Your task to perform on an android device: Set an alarm for 10am Image 0: 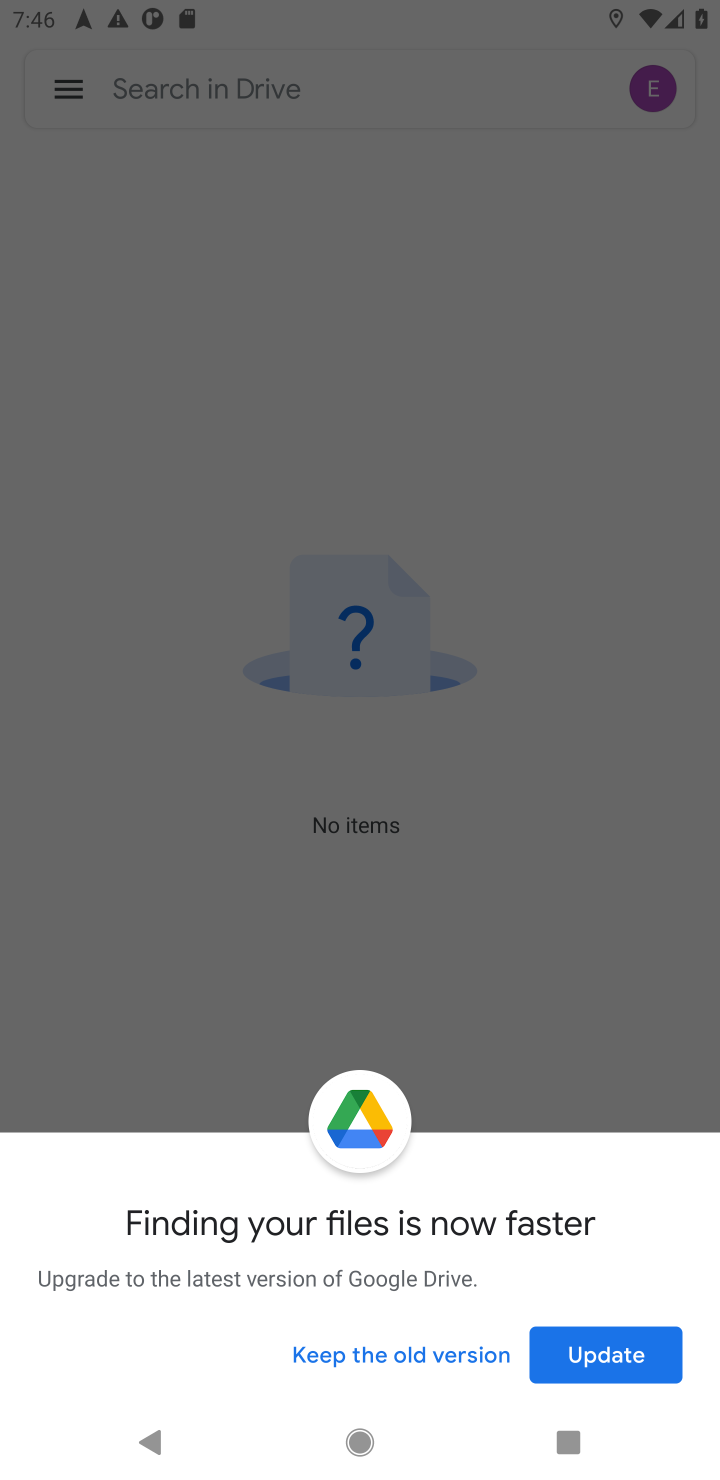
Step 0: press home button
Your task to perform on an android device: Set an alarm for 10am Image 1: 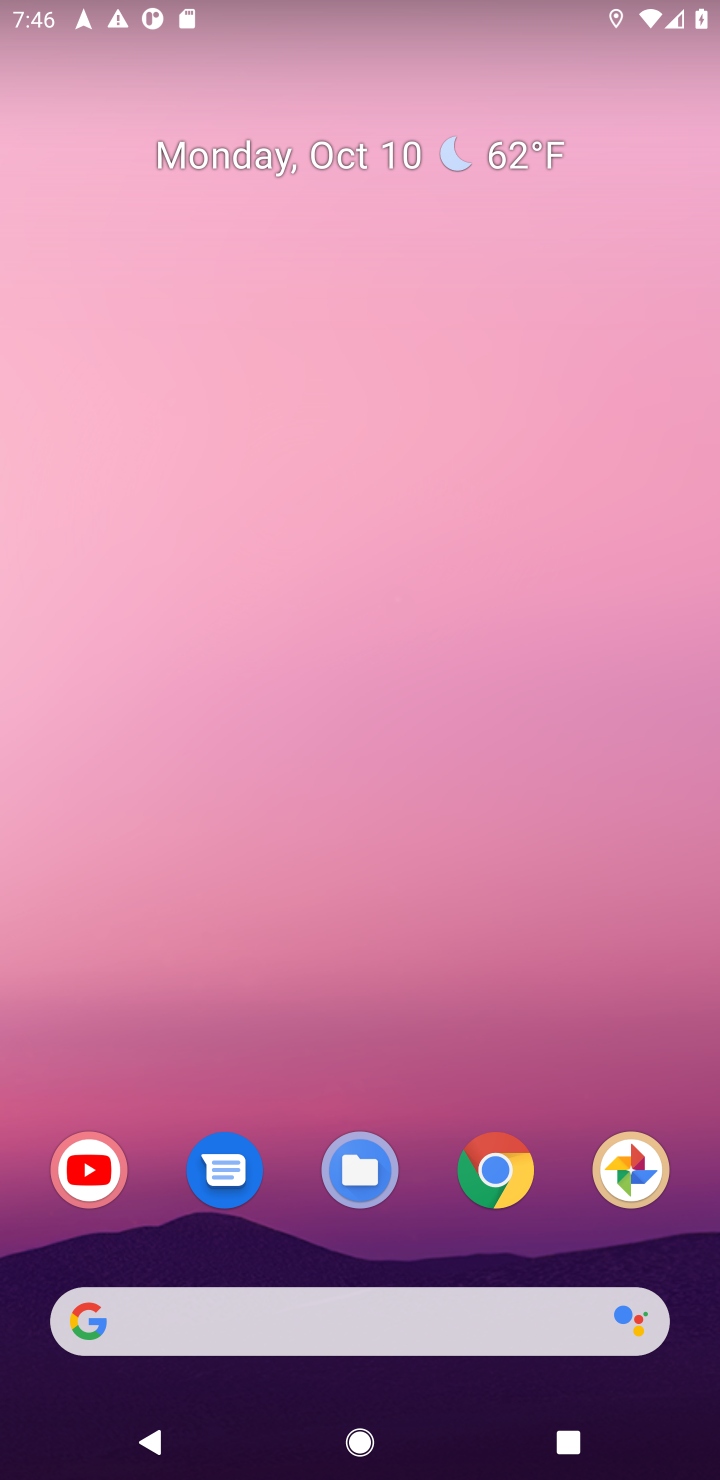
Step 1: drag from (464, 1024) to (431, 417)
Your task to perform on an android device: Set an alarm for 10am Image 2: 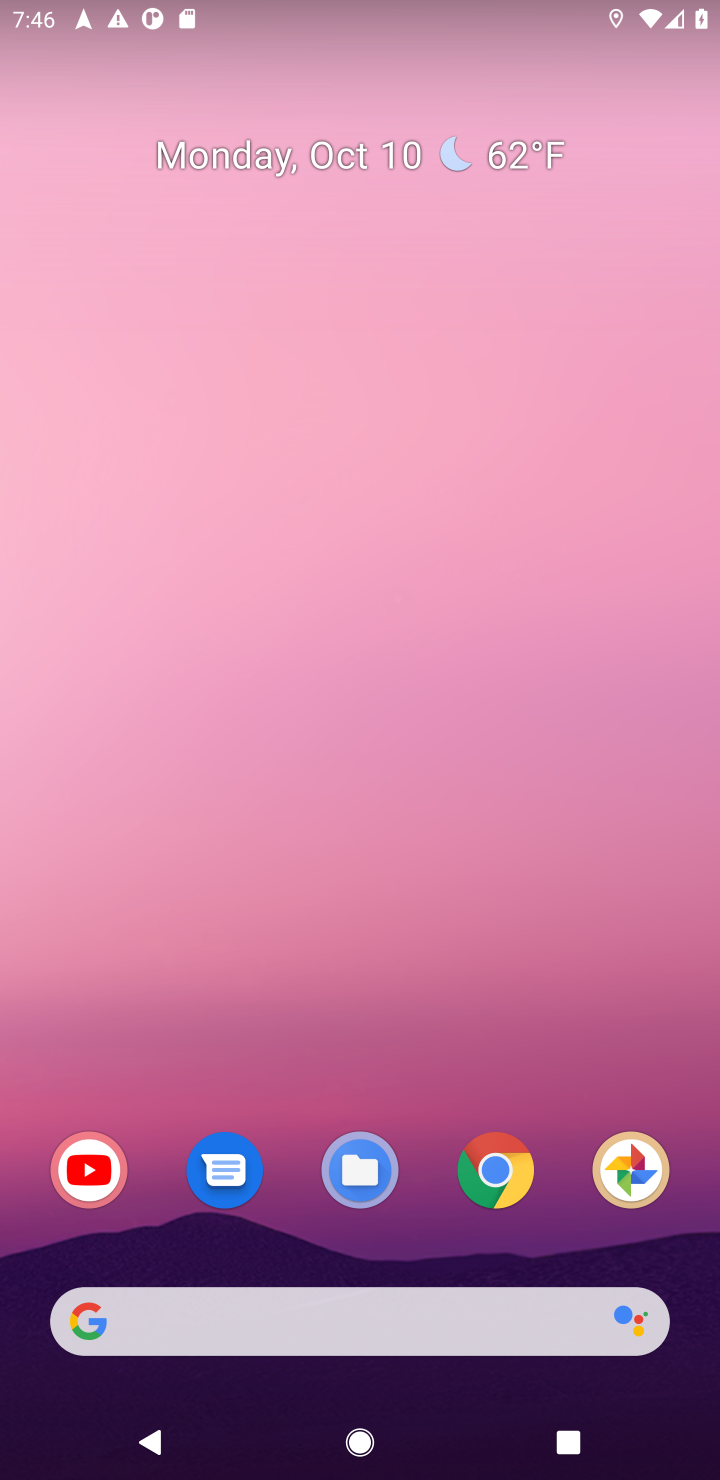
Step 2: drag from (451, 970) to (384, 174)
Your task to perform on an android device: Set an alarm for 10am Image 3: 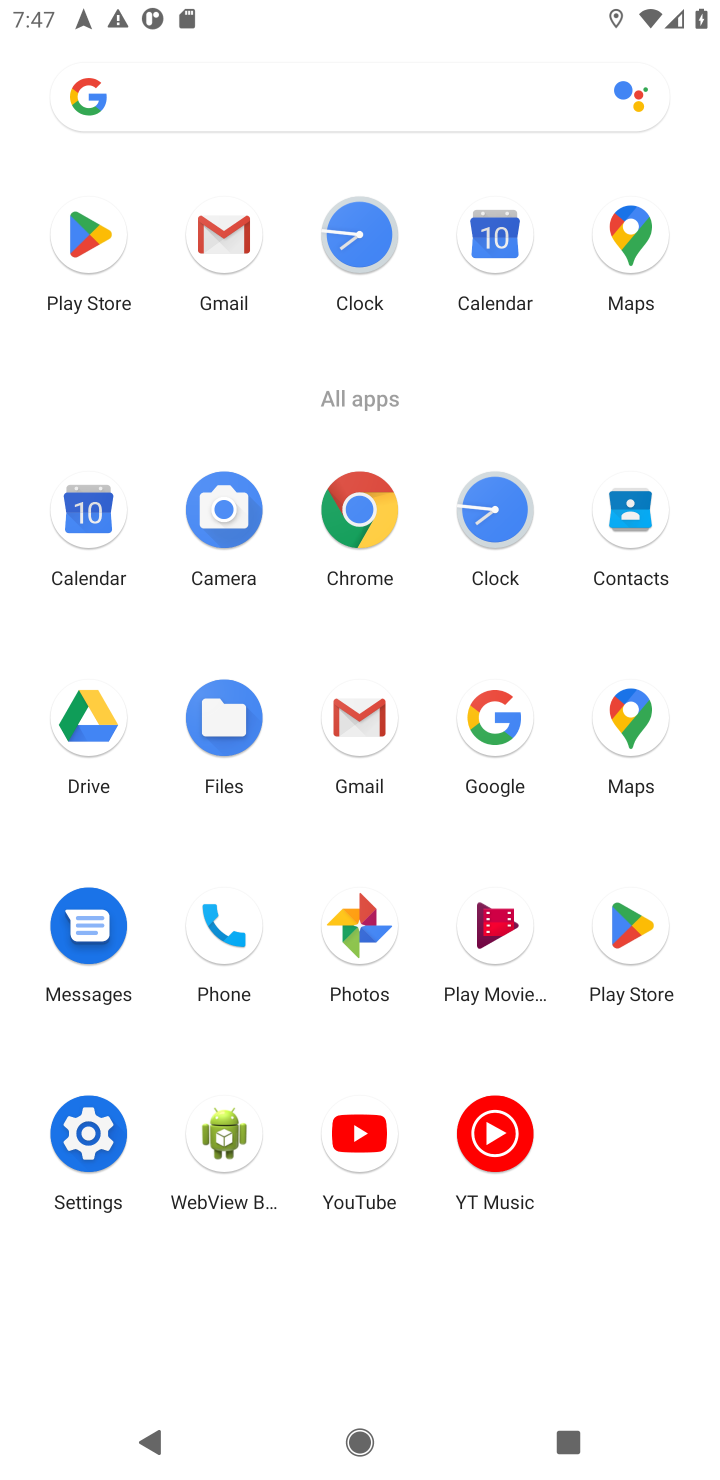
Step 3: click (499, 539)
Your task to perform on an android device: Set an alarm for 10am Image 4: 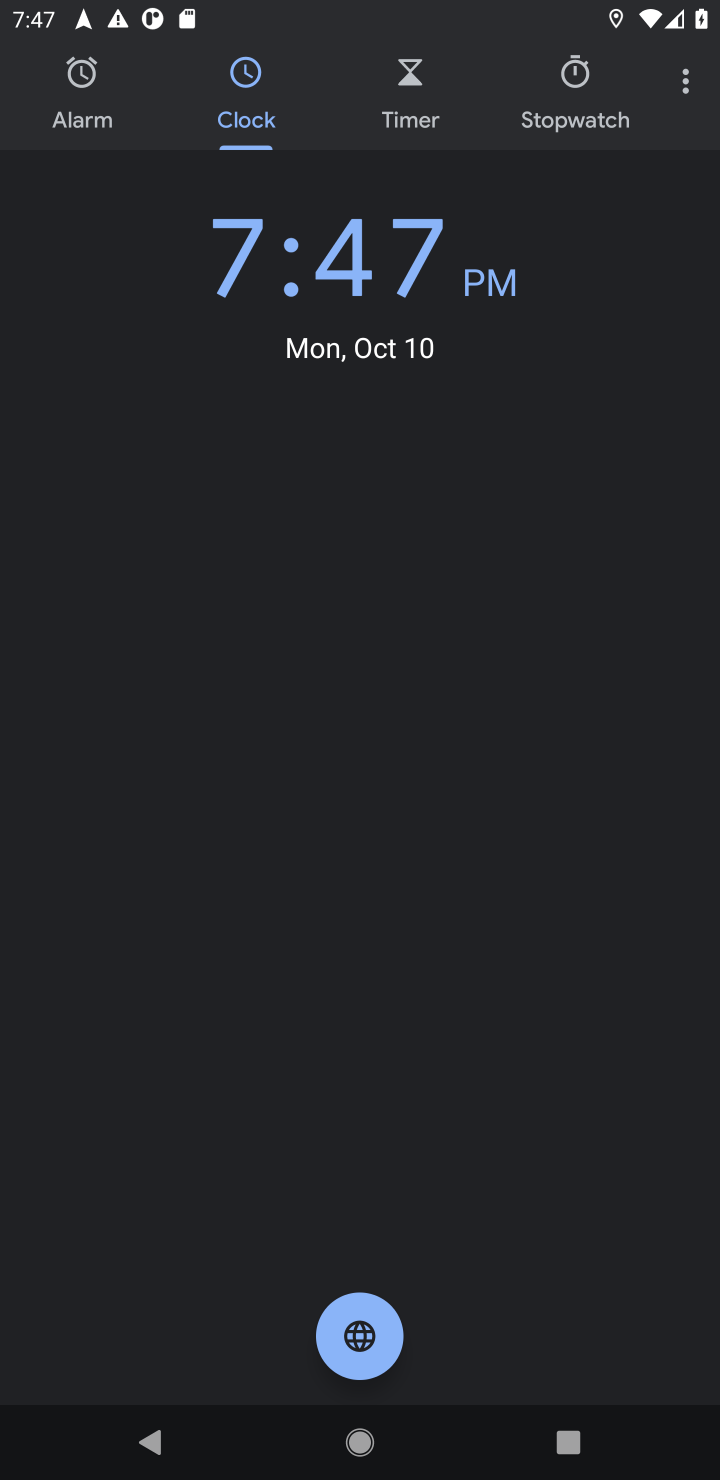
Step 4: click (102, 99)
Your task to perform on an android device: Set an alarm for 10am Image 5: 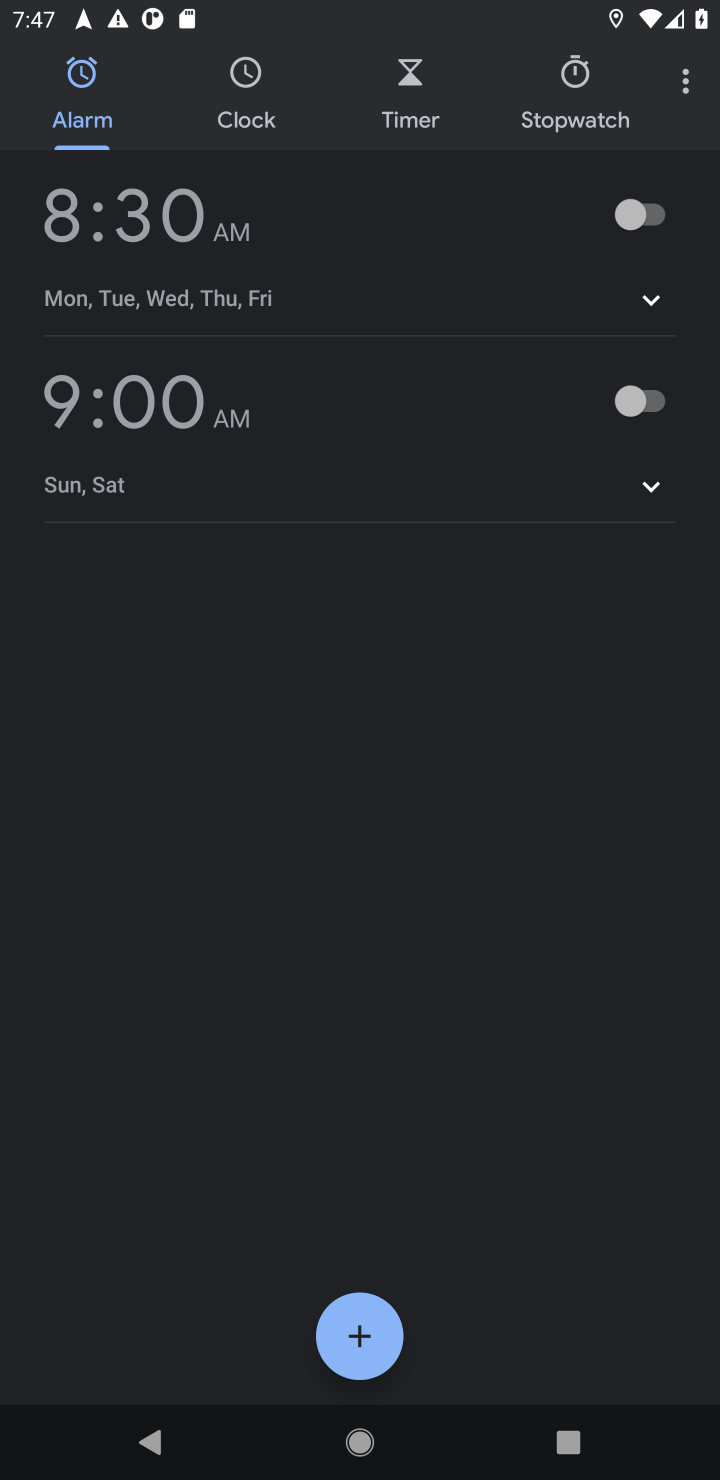
Step 5: click (368, 1330)
Your task to perform on an android device: Set an alarm for 10am Image 6: 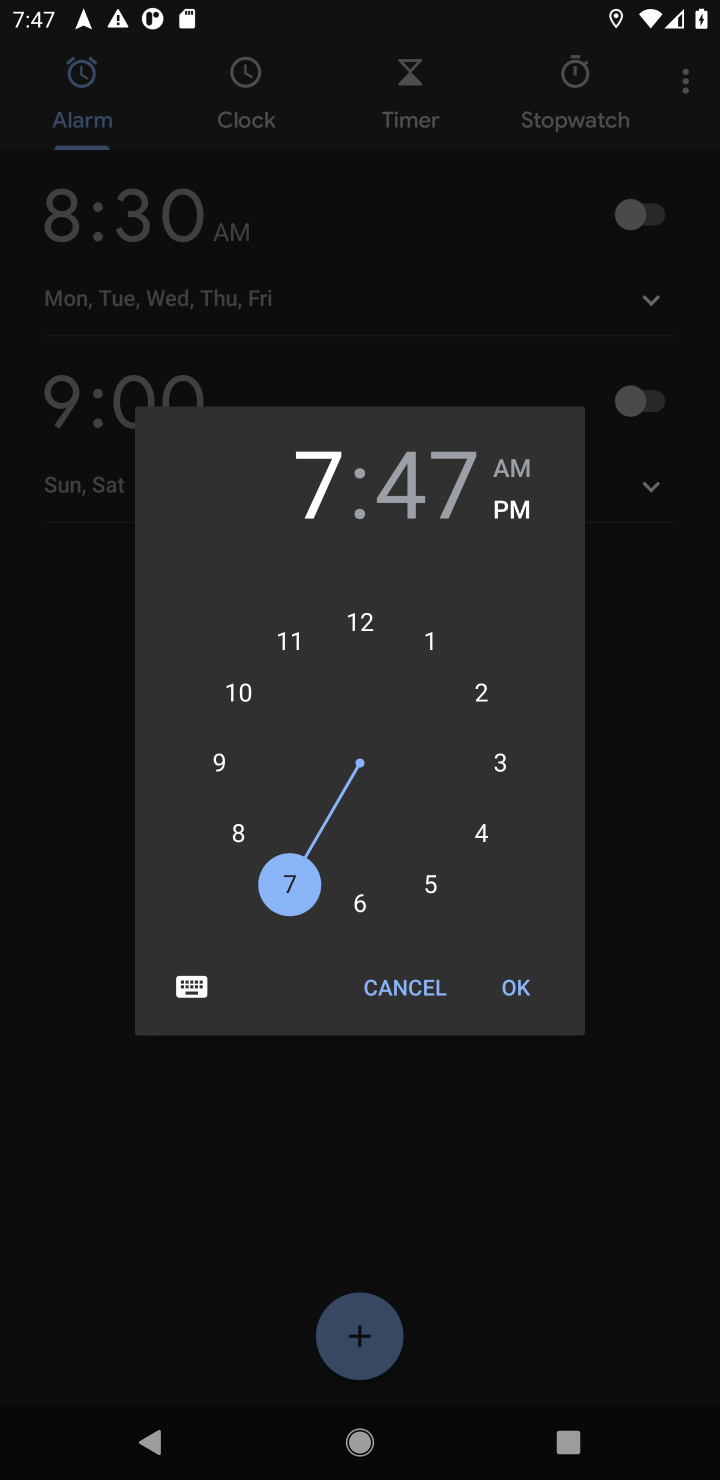
Step 6: click (247, 702)
Your task to perform on an android device: Set an alarm for 10am Image 7: 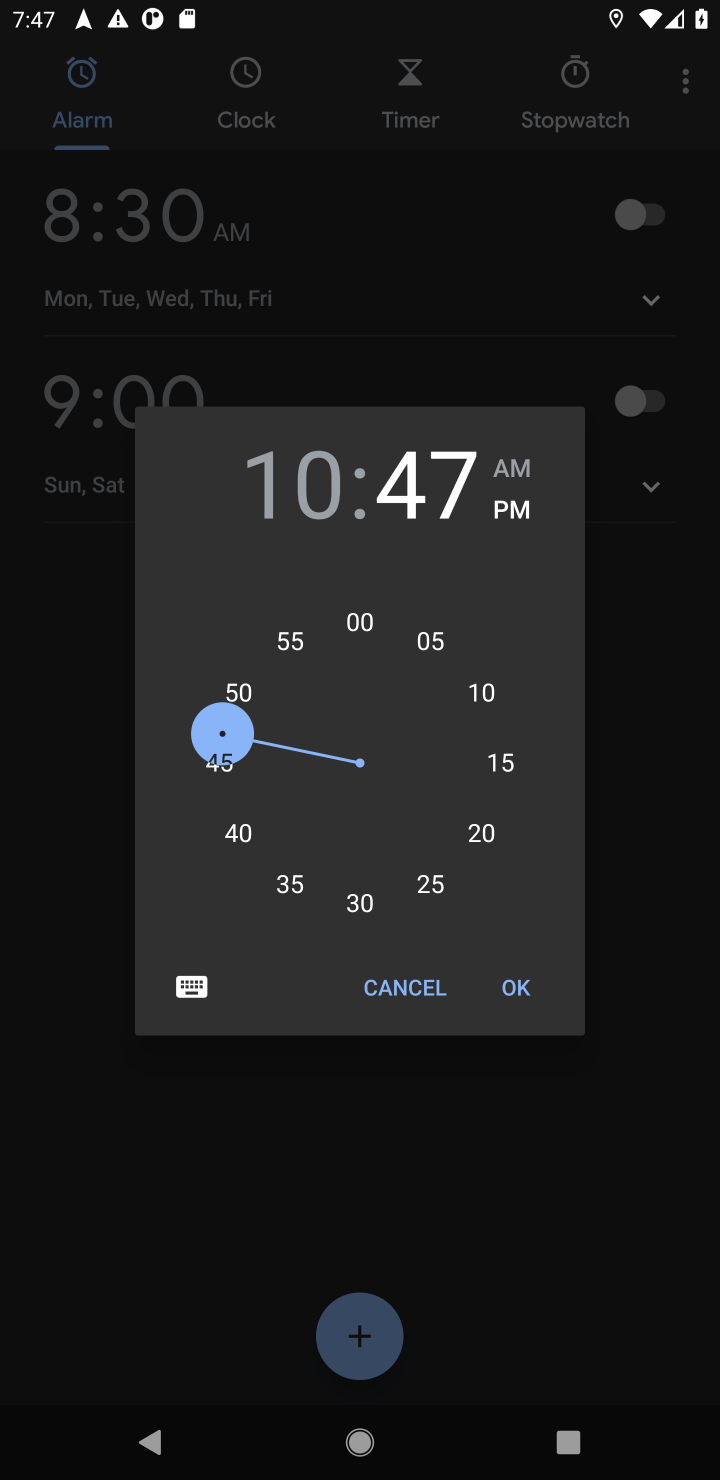
Step 7: click (368, 624)
Your task to perform on an android device: Set an alarm for 10am Image 8: 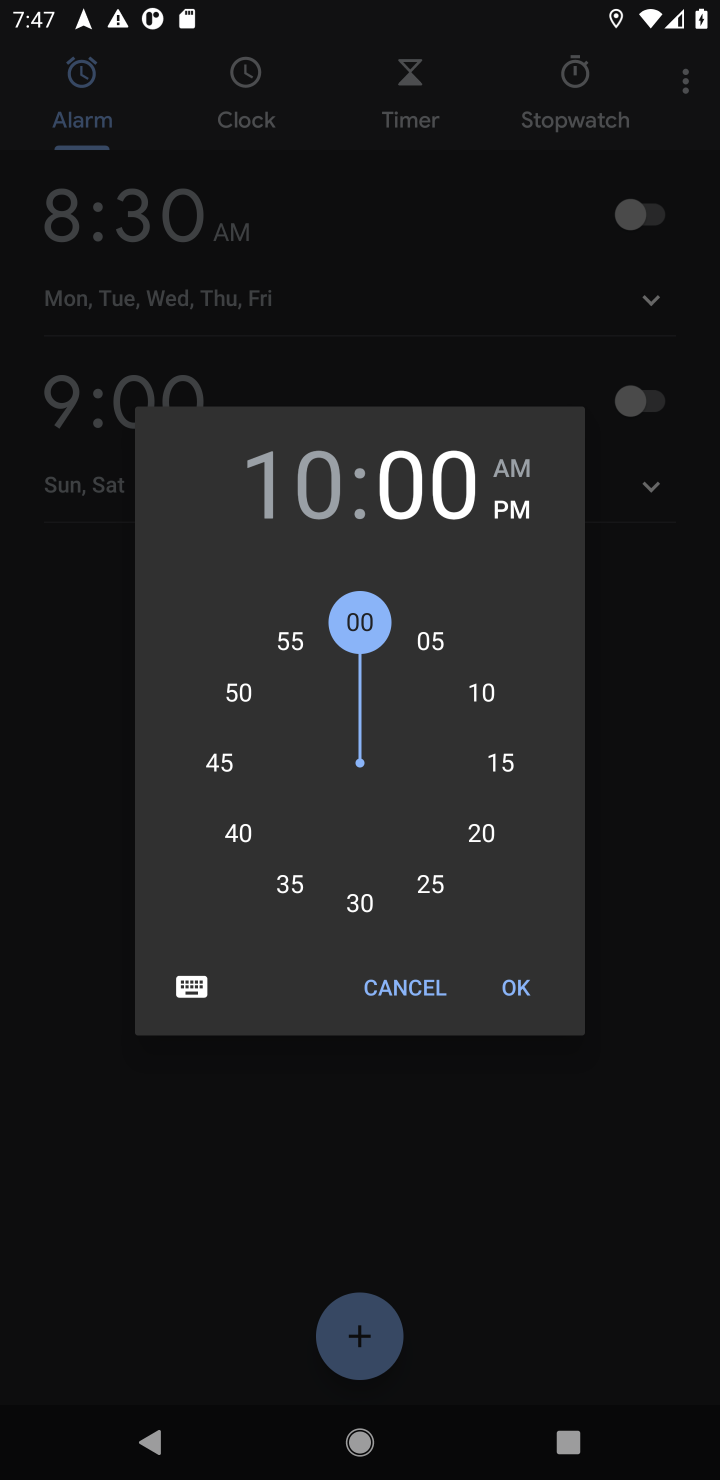
Step 8: click (521, 471)
Your task to perform on an android device: Set an alarm for 10am Image 9: 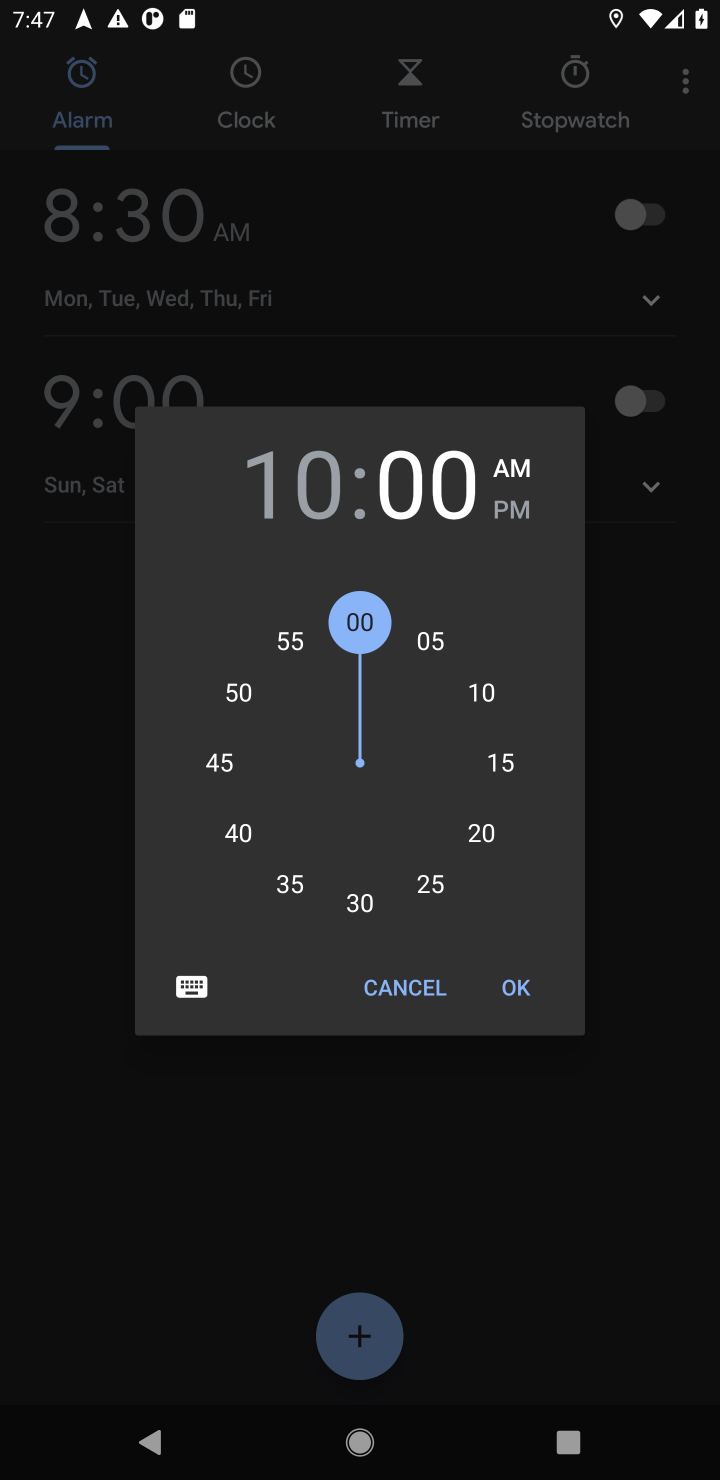
Step 9: click (524, 991)
Your task to perform on an android device: Set an alarm for 10am Image 10: 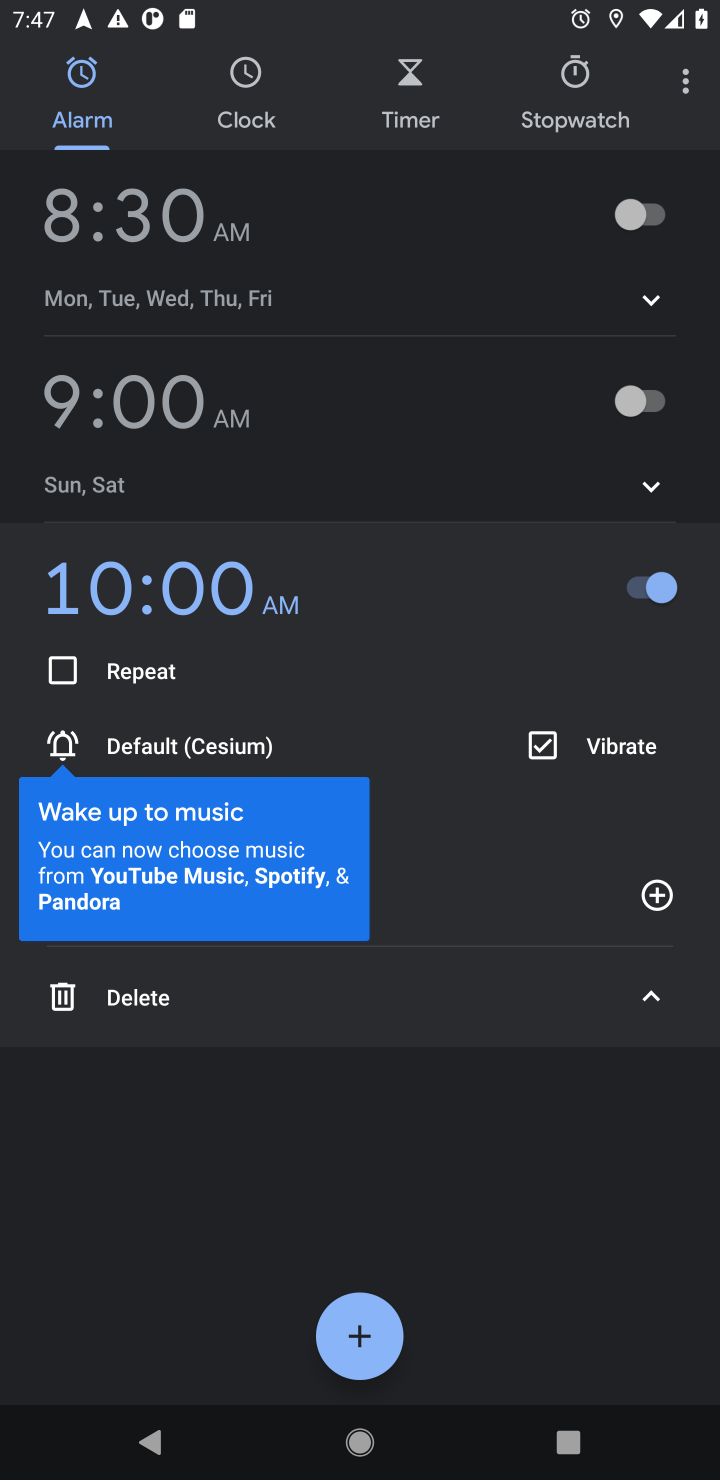
Step 10: task complete